Your task to perform on an android device: toggle translation in the chrome app Image 0: 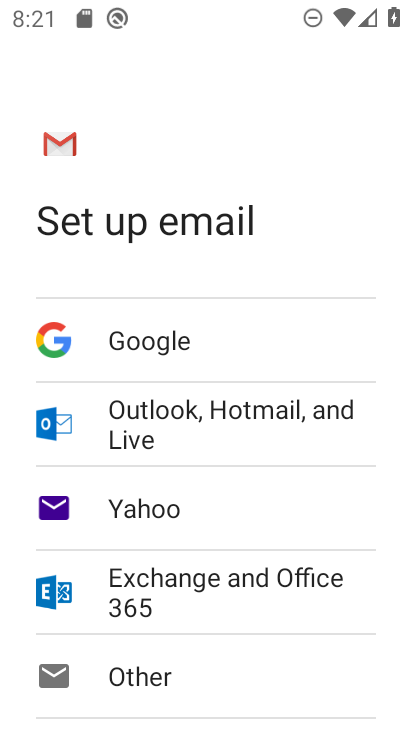
Step 0: press back button
Your task to perform on an android device: toggle translation in the chrome app Image 1: 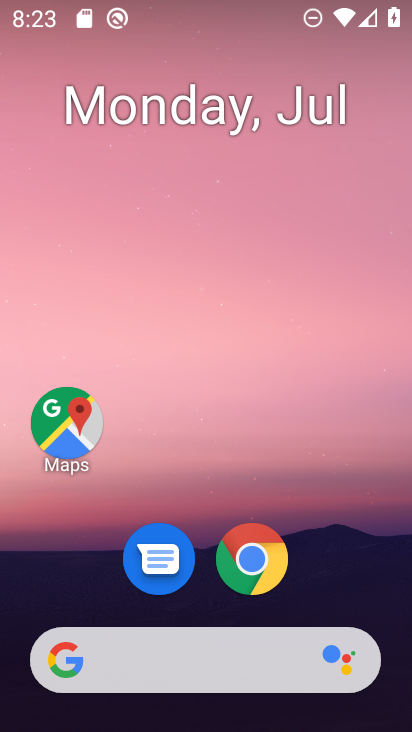
Step 1: click (257, 564)
Your task to perform on an android device: toggle translation in the chrome app Image 2: 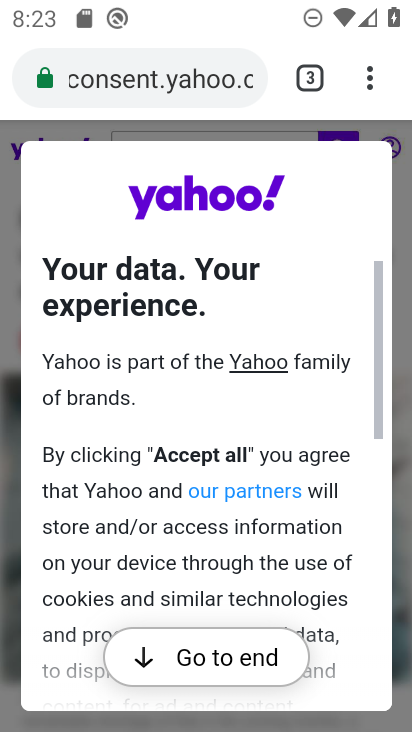
Step 2: drag from (364, 79) to (130, 616)
Your task to perform on an android device: toggle translation in the chrome app Image 3: 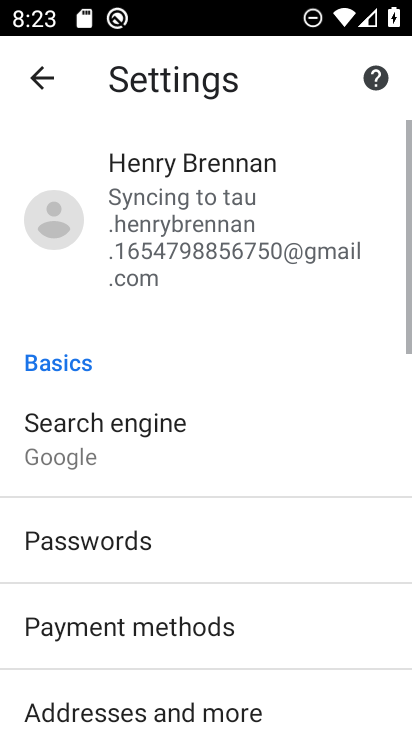
Step 3: drag from (141, 645) to (245, 33)
Your task to perform on an android device: toggle translation in the chrome app Image 4: 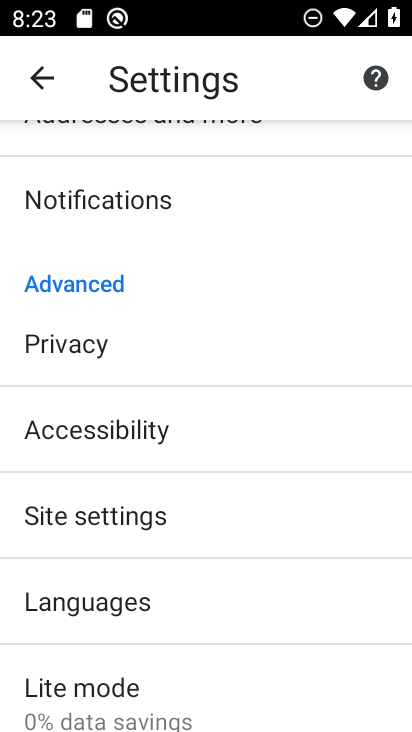
Step 4: click (124, 616)
Your task to perform on an android device: toggle translation in the chrome app Image 5: 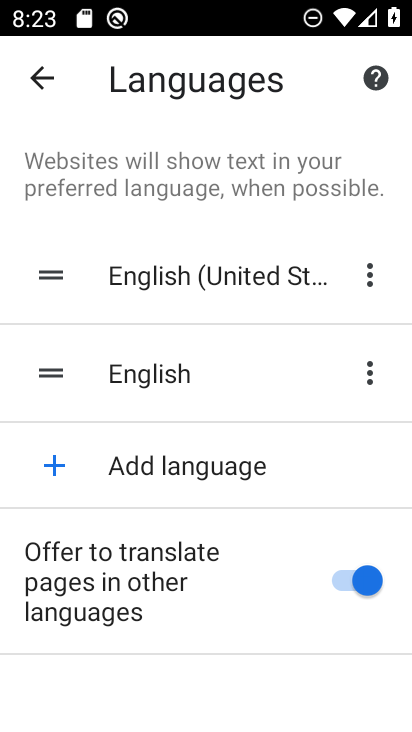
Step 5: click (370, 575)
Your task to perform on an android device: toggle translation in the chrome app Image 6: 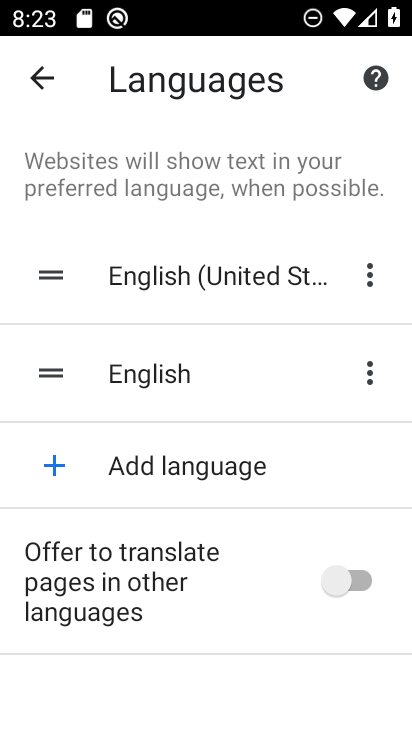
Step 6: task complete